Your task to perform on an android device: Open maps Image 0: 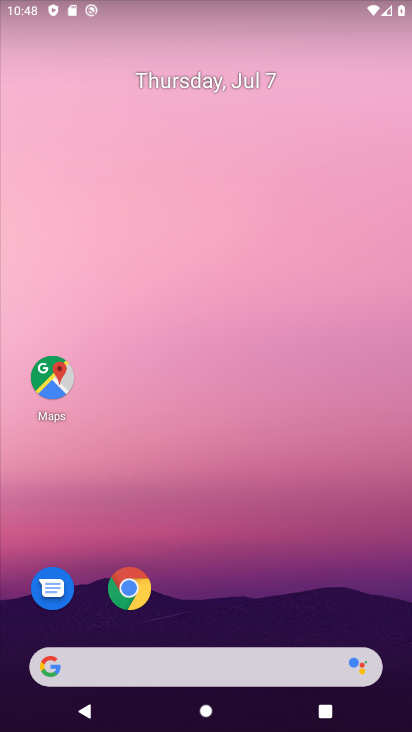
Step 0: click (54, 383)
Your task to perform on an android device: Open maps Image 1: 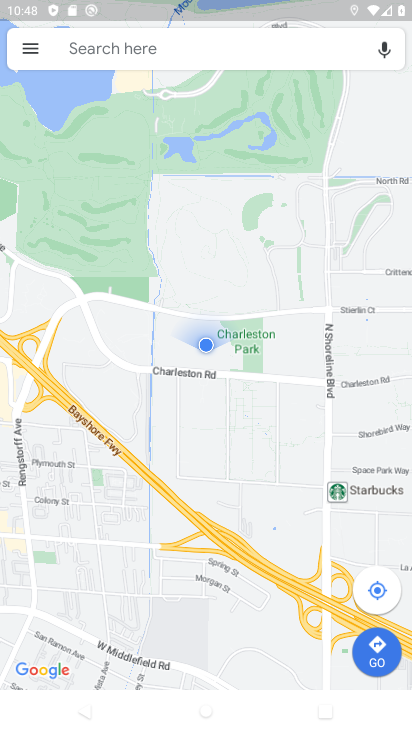
Step 1: task complete